Your task to perform on an android device: Go to Google Image 0: 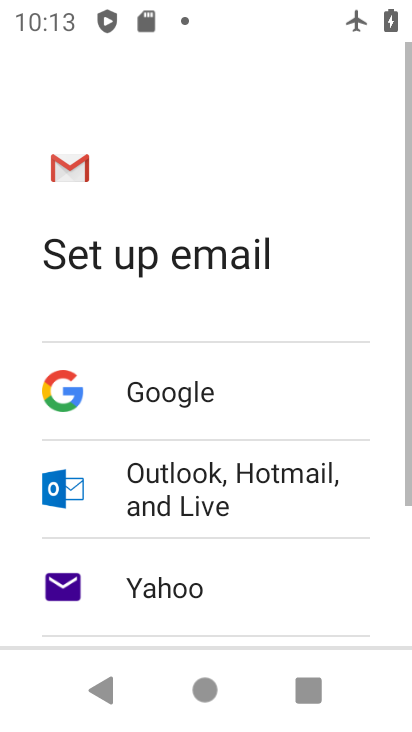
Step 0: press home button
Your task to perform on an android device: Go to Google Image 1: 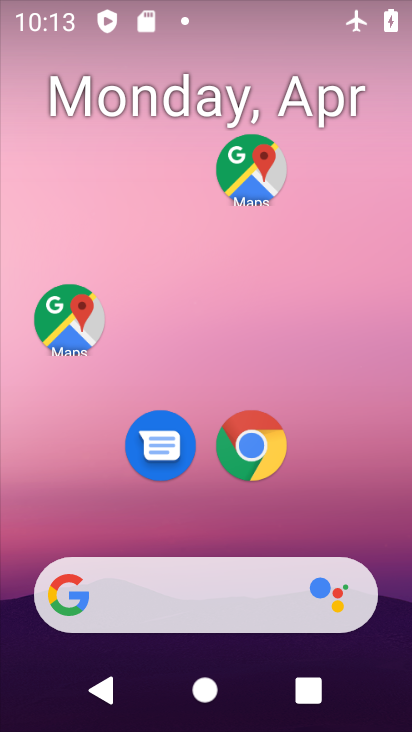
Step 1: drag from (81, 528) to (29, 21)
Your task to perform on an android device: Go to Google Image 2: 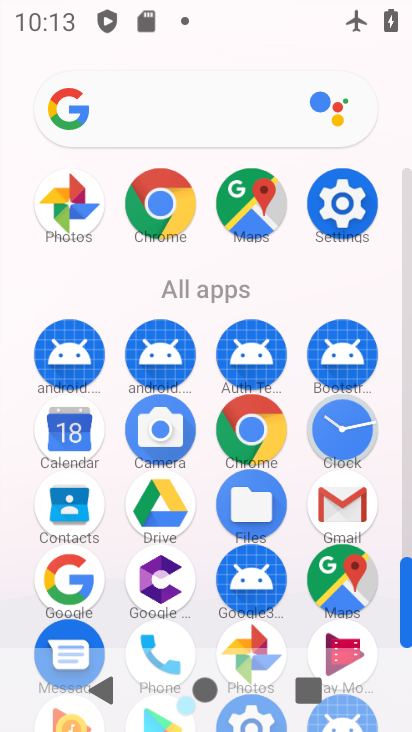
Step 2: click (80, 578)
Your task to perform on an android device: Go to Google Image 3: 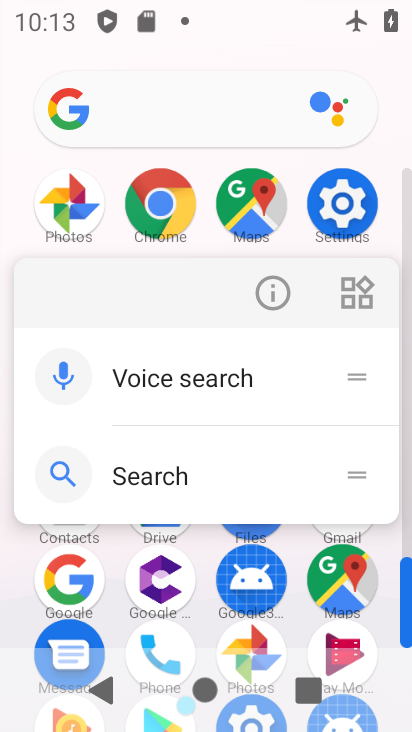
Step 3: click (73, 563)
Your task to perform on an android device: Go to Google Image 4: 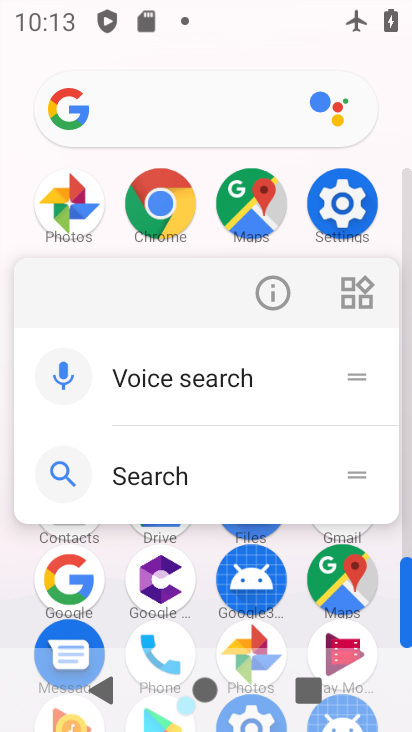
Step 4: click (76, 555)
Your task to perform on an android device: Go to Google Image 5: 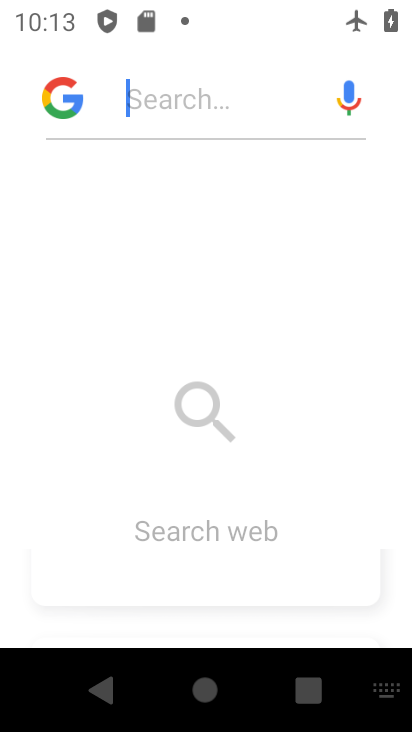
Step 5: task complete